Your task to perform on an android device: turn on the 24-hour format for clock Image 0: 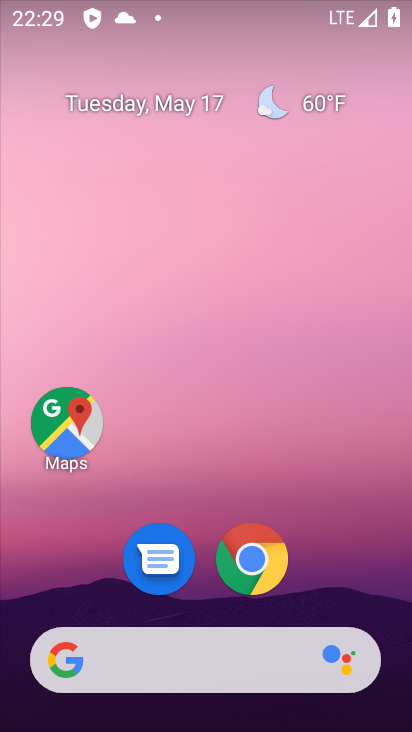
Step 0: drag from (356, 559) to (334, 129)
Your task to perform on an android device: turn on the 24-hour format for clock Image 1: 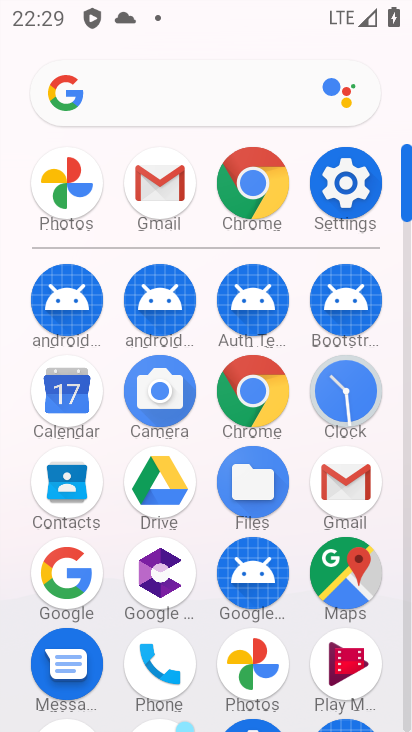
Step 1: click (354, 410)
Your task to perform on an android device: turn on the 24-hour format for clock Image 2: 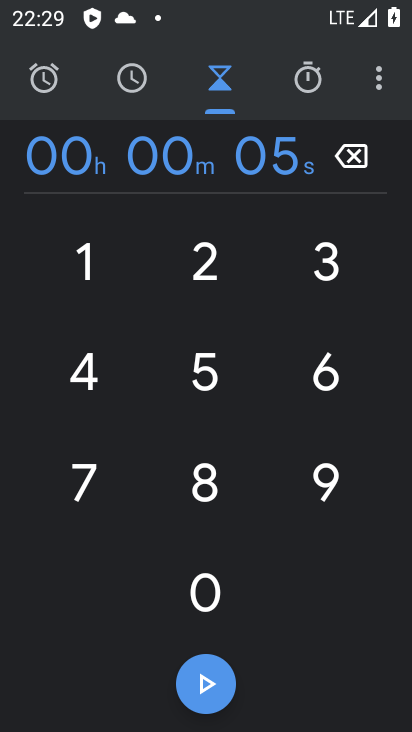
Step 2: click (381, 77)
Your task to perform on an android device: turn on the 24-hour format for clock Image 3: 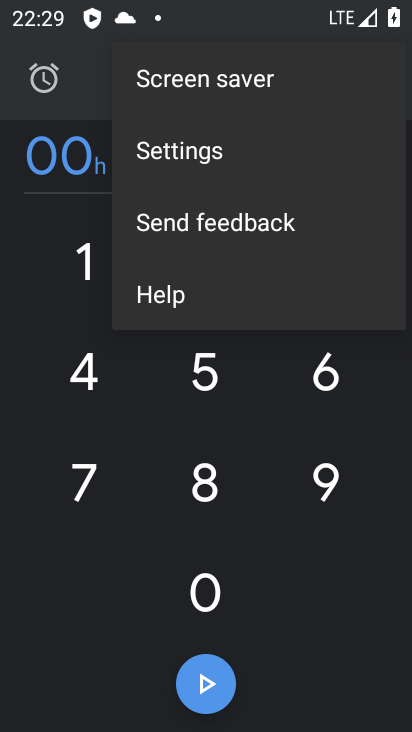
Step 3: click (192, 153)
Your task to perform on an android device: turn on the 24-hour format for clock Image 4: 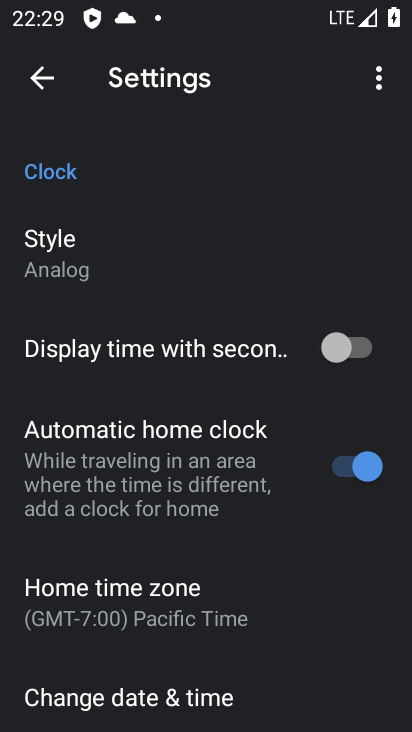
Step 4: drag from (222, 600) to (245, 265)
Your task to perform on an android device: turn on the 24-hour format for clock Image 5: 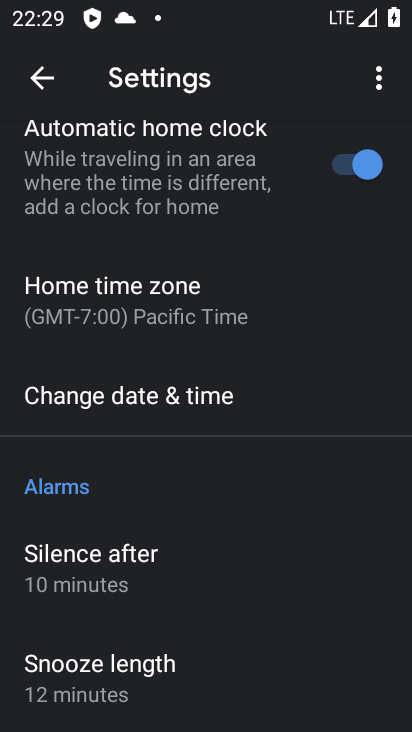
Step 5: click (157, 413)
Your task to perform on an android device: turn on the 24-hour format for clock Image 6: 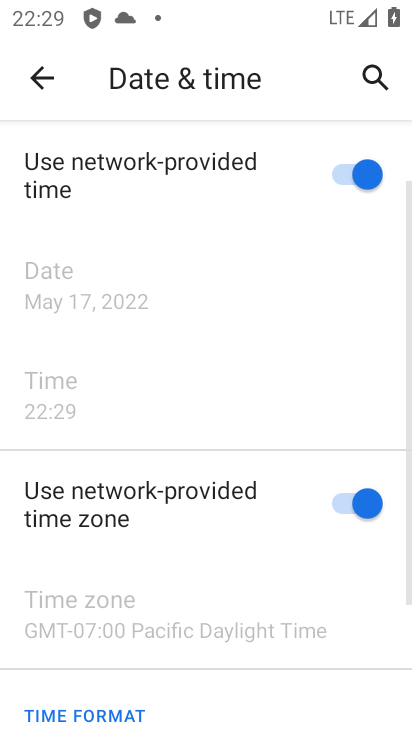
Step 6: task complete